Your task to perform on an android device: Go to internet settings Image 0: 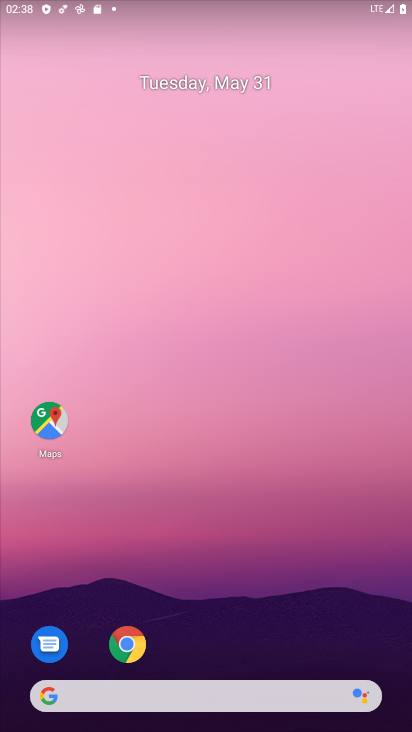
Step 0: drag from (284, 478) to (242, 64)
Your task to perform on an android device: Go to internet settings Image 1: 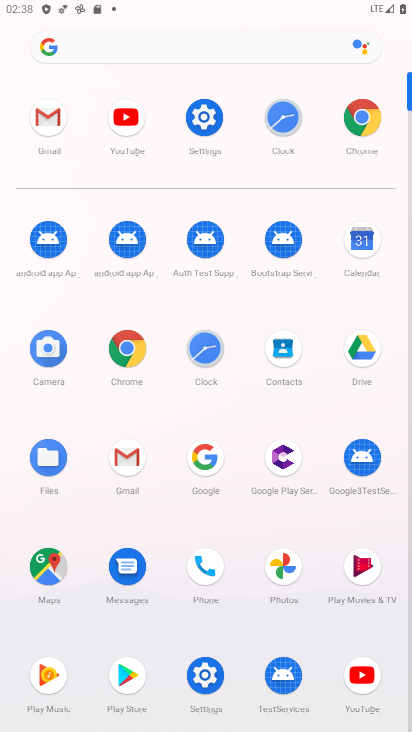
Step 1: click (214, 112)
Your task to perform on an android device: Go to internet settings Image 2: 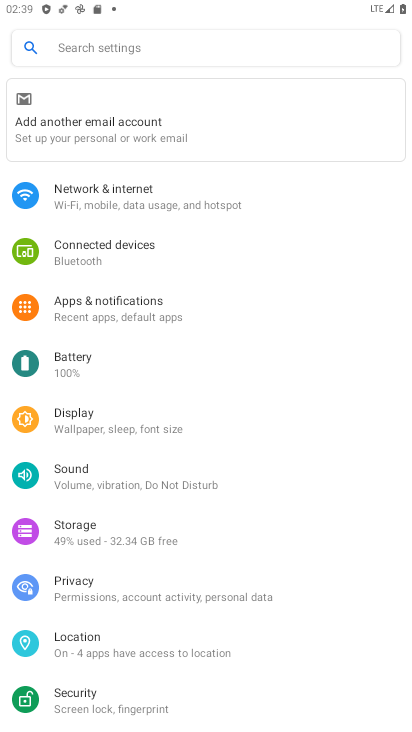
Step 2: click (151, 201)
Your task to perform on an android device: Go to internet settings Image 3: 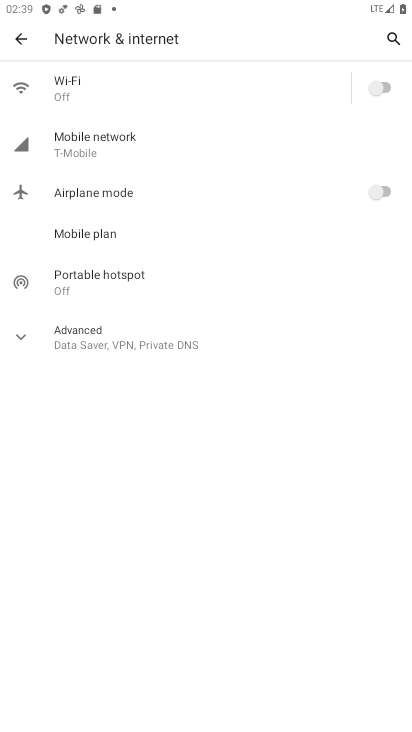
Step 3: click (115, 343)
Your task to perform on an android device: Go to internet settings Image 4: 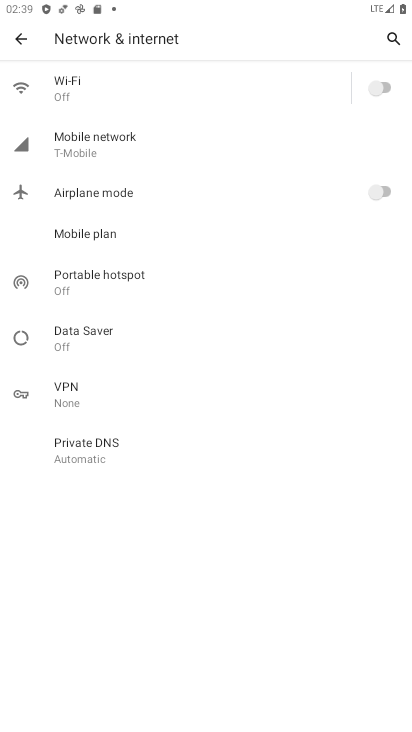
Step 4: task complete